Your task to perform on an android device: How much does a3 bedroom apartment rent for in Portland? Image 0: 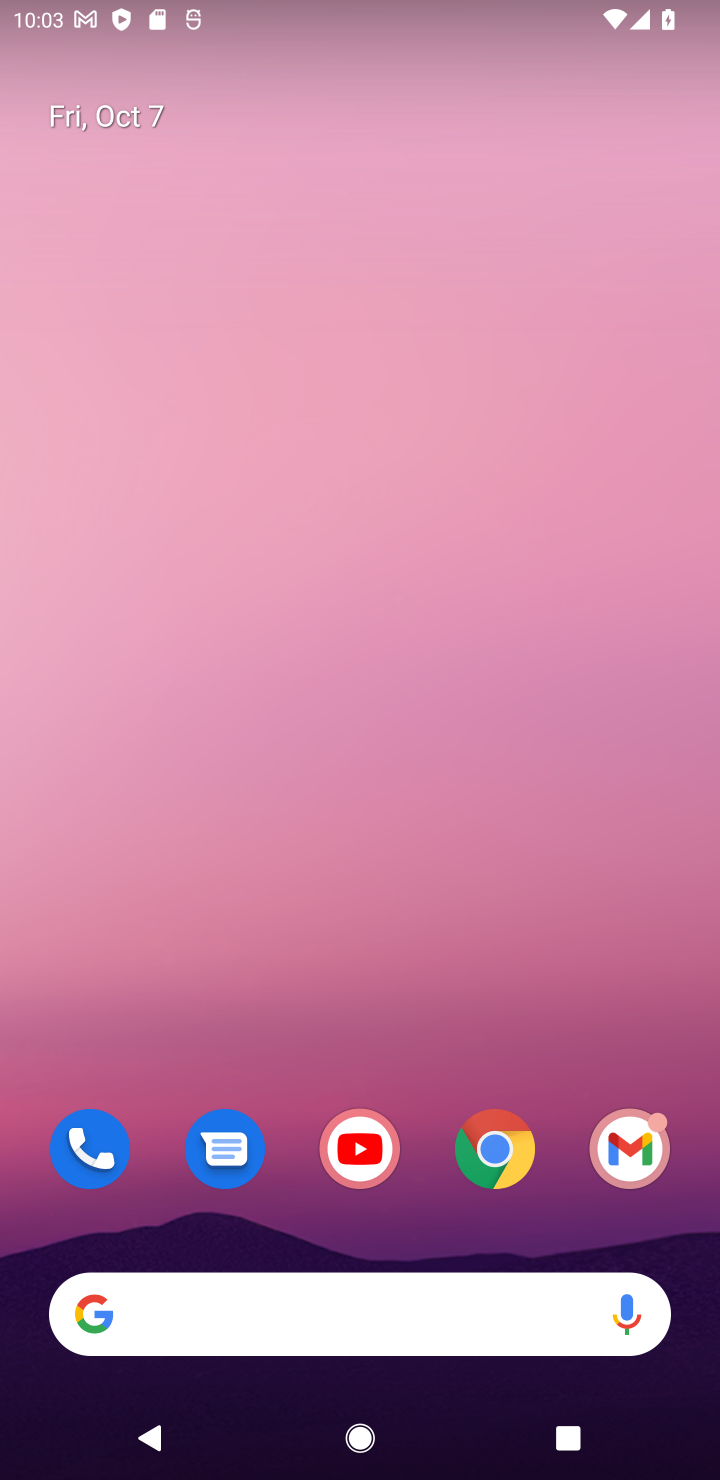
Step 0: click (281, 1296)
Your task to perform on an android device: How much does a3 bedroom apartment rent for in Portland? Image 1: 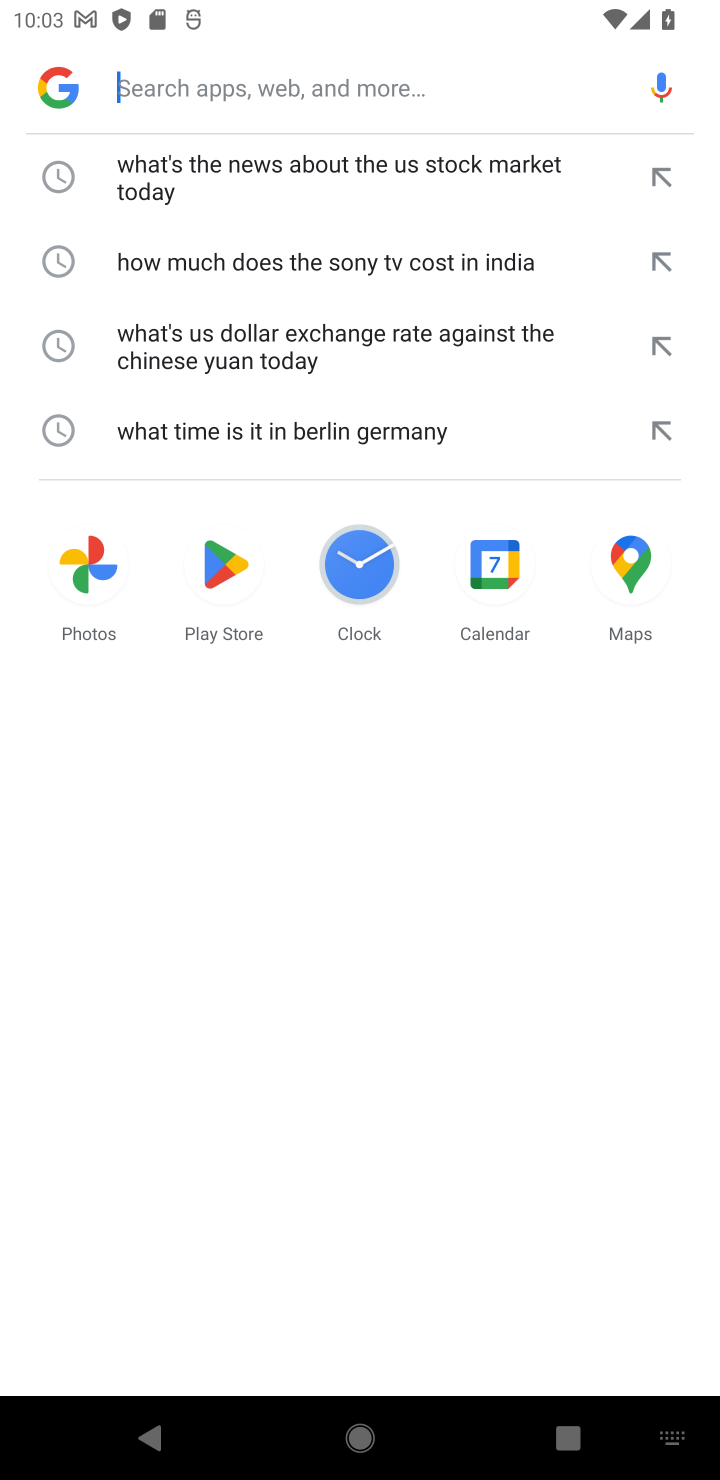
Step 1: type "How much does a3 bedroom apartment rent for in Portland?"
Your task to perform on an android device: How much does a3 bedroom apartment rent for in Portland? Image 2: 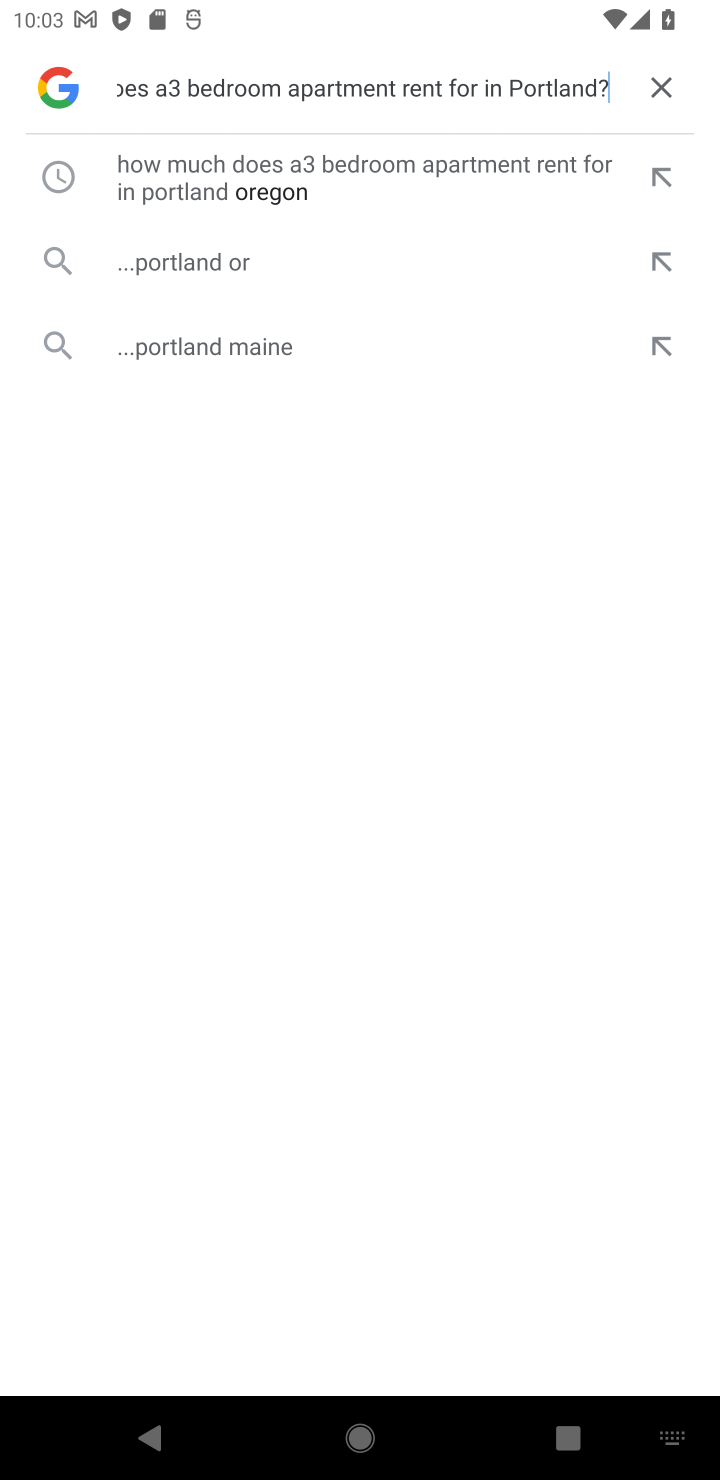
Step 2: click (148, 198)
Your task to perform on an android device: How much does a3 bedroom apartment rent for in Portland? Image 3: 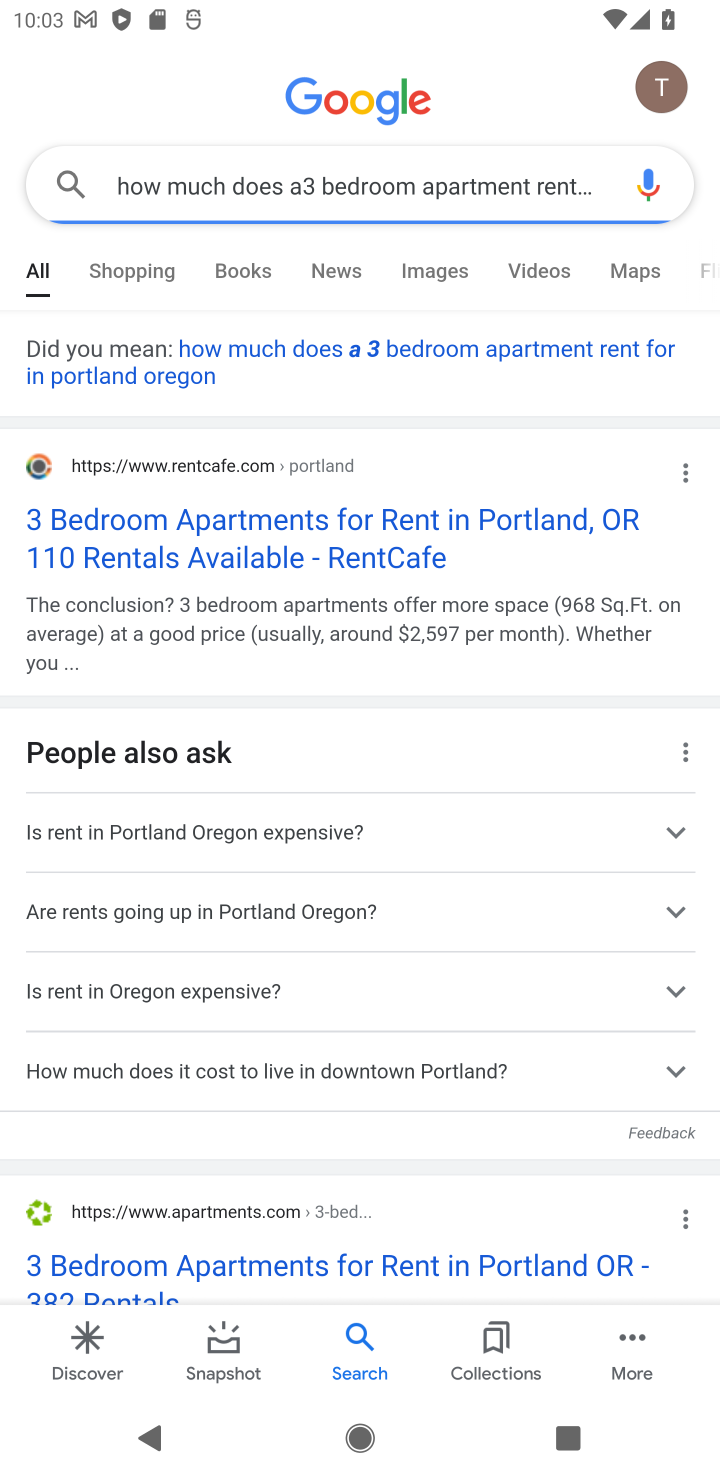
Step 3: task complete